Your task to perform on an android device: change the clock display to analog Image 0: 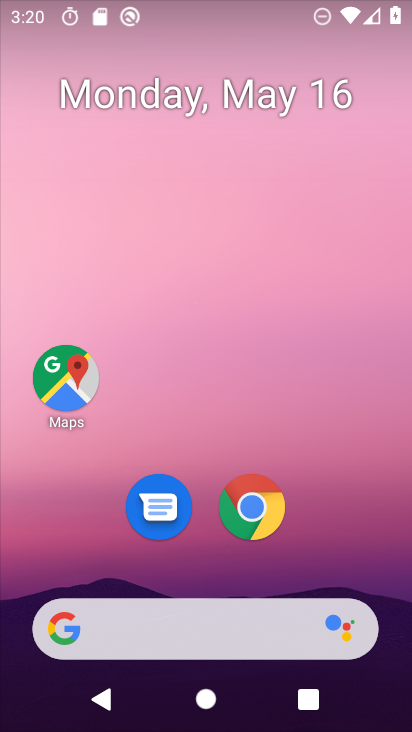
Step 0: drag from (358, 528) to (368, 28)
Your task to perform on an android device: change the clock display to analog Image 1: 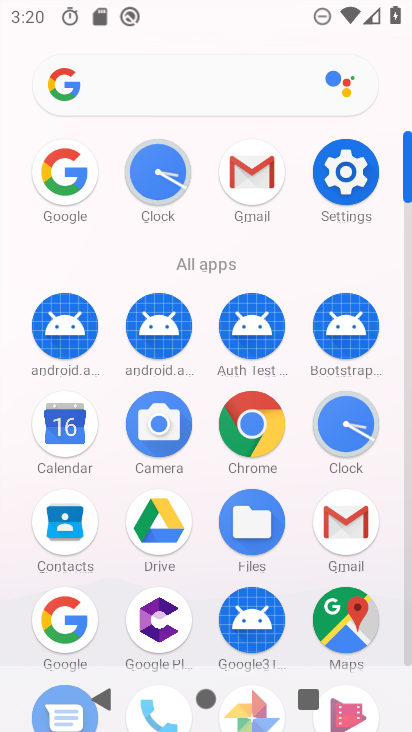
Step 1: click (164, 190)
Your task to perform on an android device: change the clock display to analog Image 2: 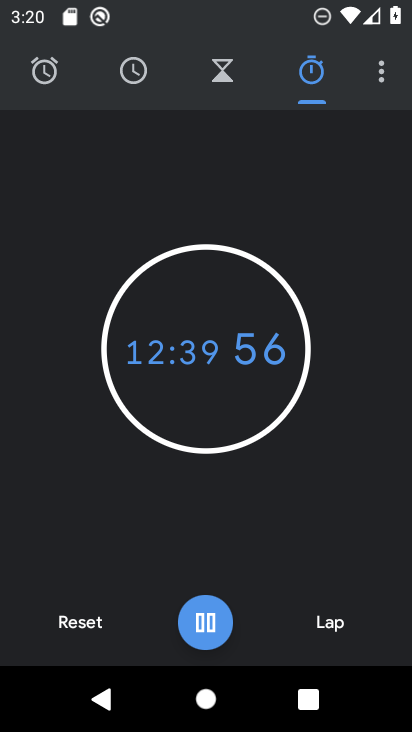
Step 2: click (390, 74)
Your task to perform on an android device: change the clock display to analog Image 3: 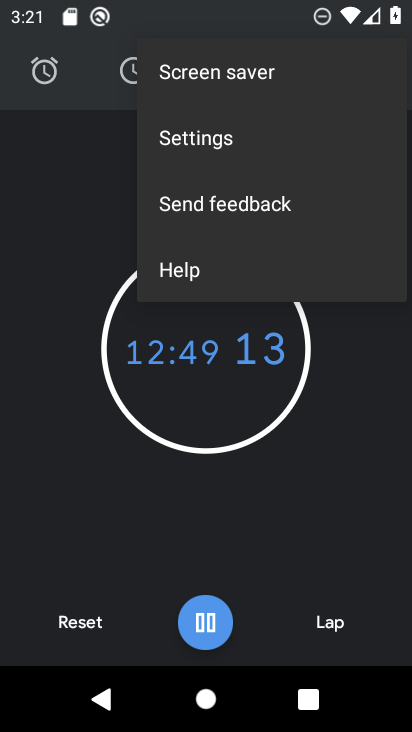
Step 3: click (207, 149)
Your task to perform on an android device: change the clock display to analog Image 4: 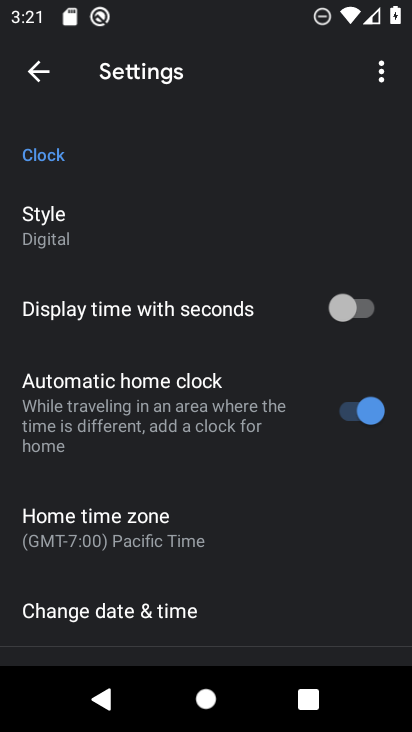
Step 4: drag from (173, 279) to (160, 541)
Your task to perform on an android device: change the clock display to analog Image 5: 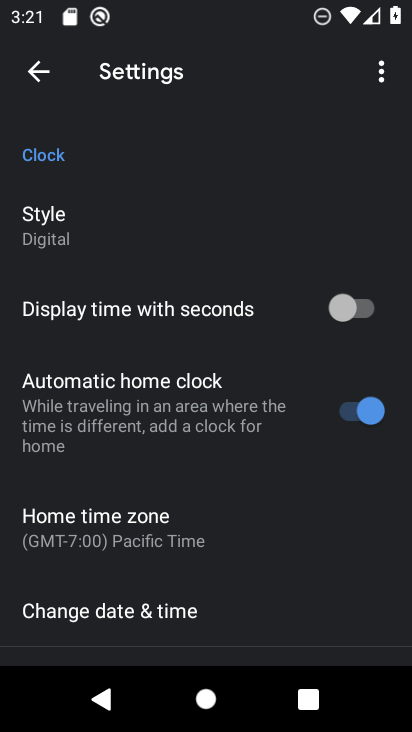
Step 5: drag from (143, 219) to (154, 512)
Your task to perform on an android device: change the clock display to analog Image 6: 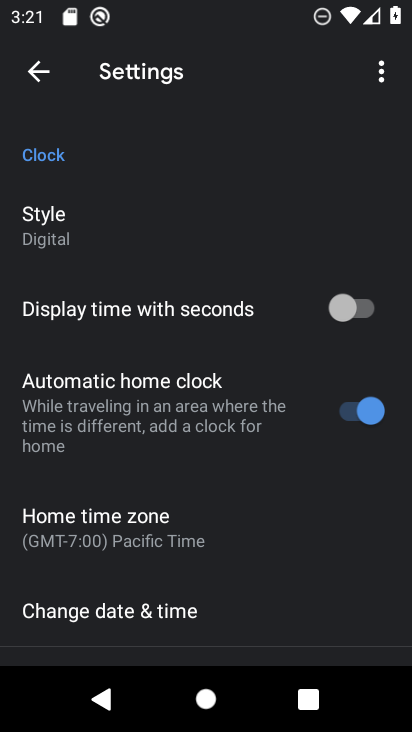
Step 6: click (67, 236)
Your task to perform on an android device: change the clock display to analog Image 7: 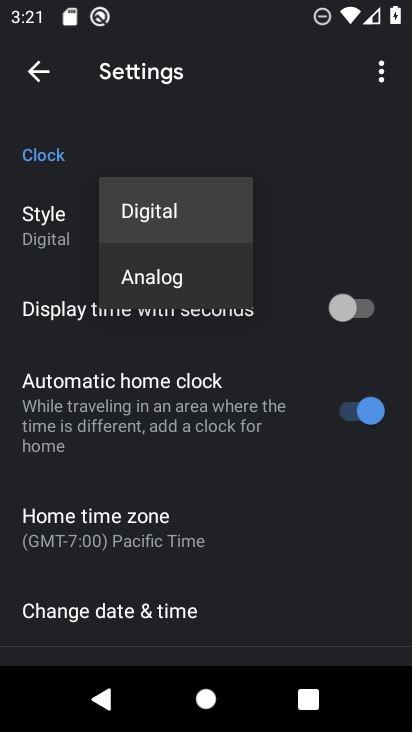
Step 7: click (136, 292)
Your task to perform on an android device: change the clock display to analog Image 8: 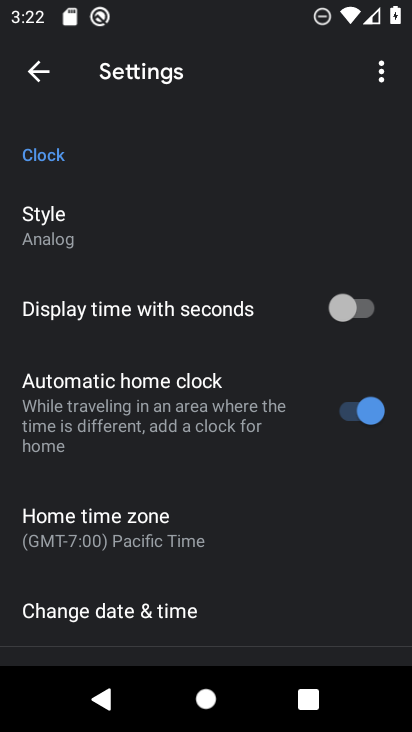
Step 8: task complete